Your task to perform on an android device: Search for "bose soundlink mini" on walmart.com, select the first entry, add it to the cart, then select checkout. Image 0: 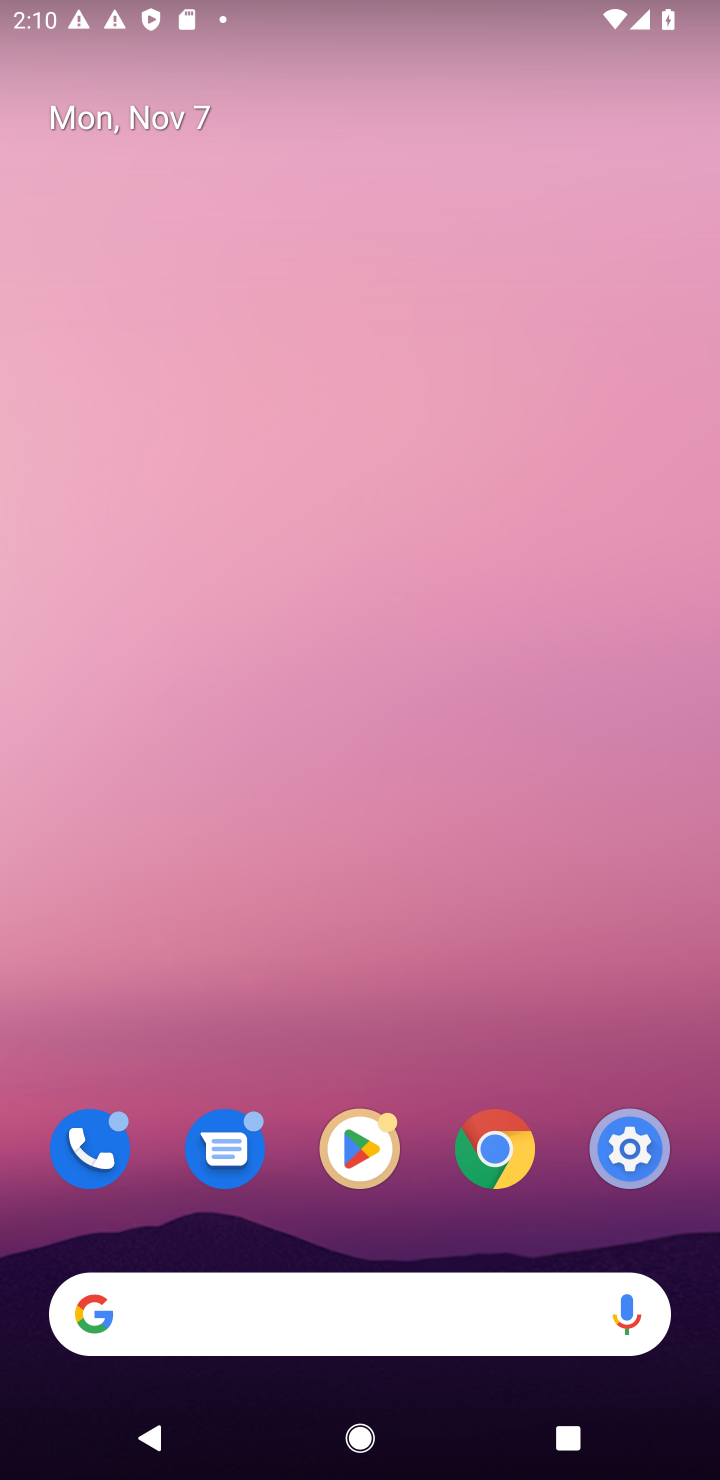
Step 0: click (489, 1146)
Your task to perform on an android device: Search for "bose soundlink mini" on walmart.com, select the first entry, add it to the cart, then select checkout. Image 1: 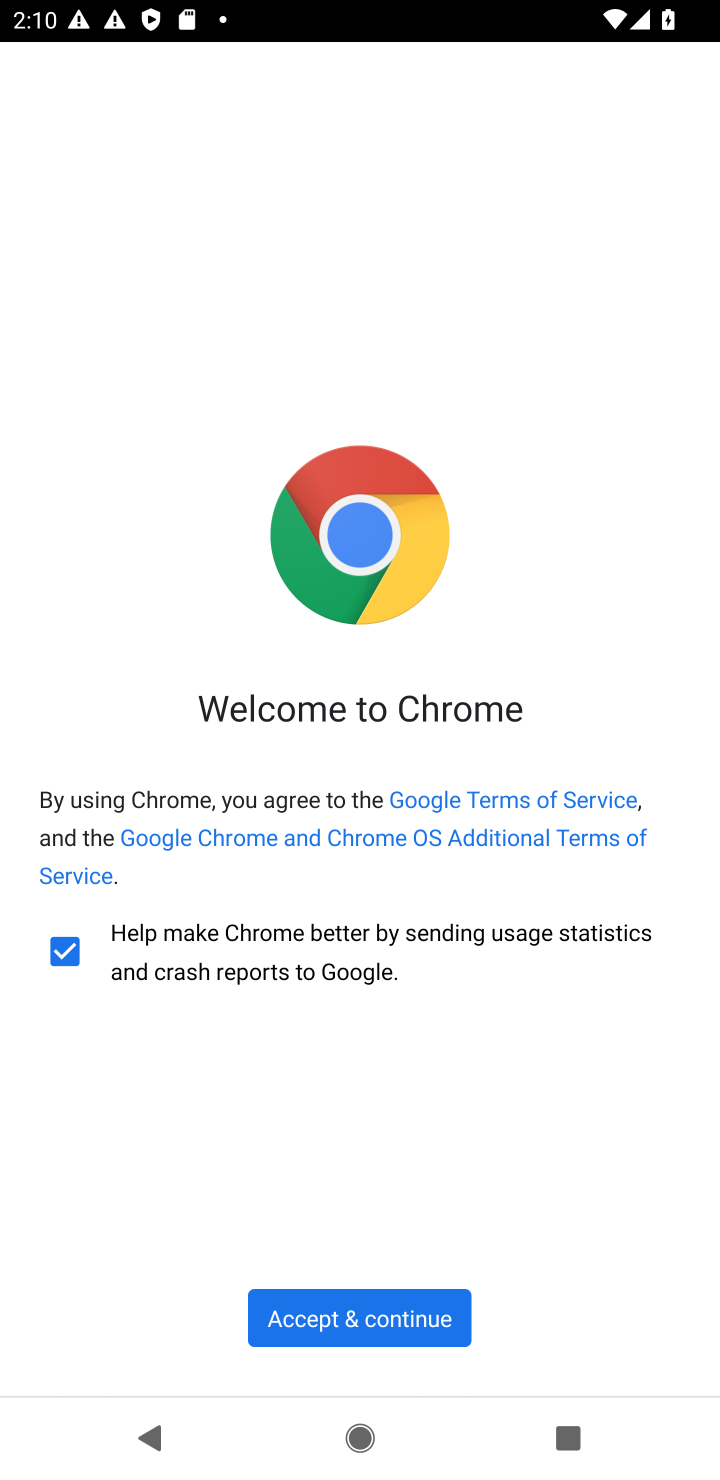
Step 1: click (376, 1307)
Your task to perform on an android device: Search for "bose soundlink mini" on walmart.com, select the first entry, add it to the cart, then select checkout. Image 2: 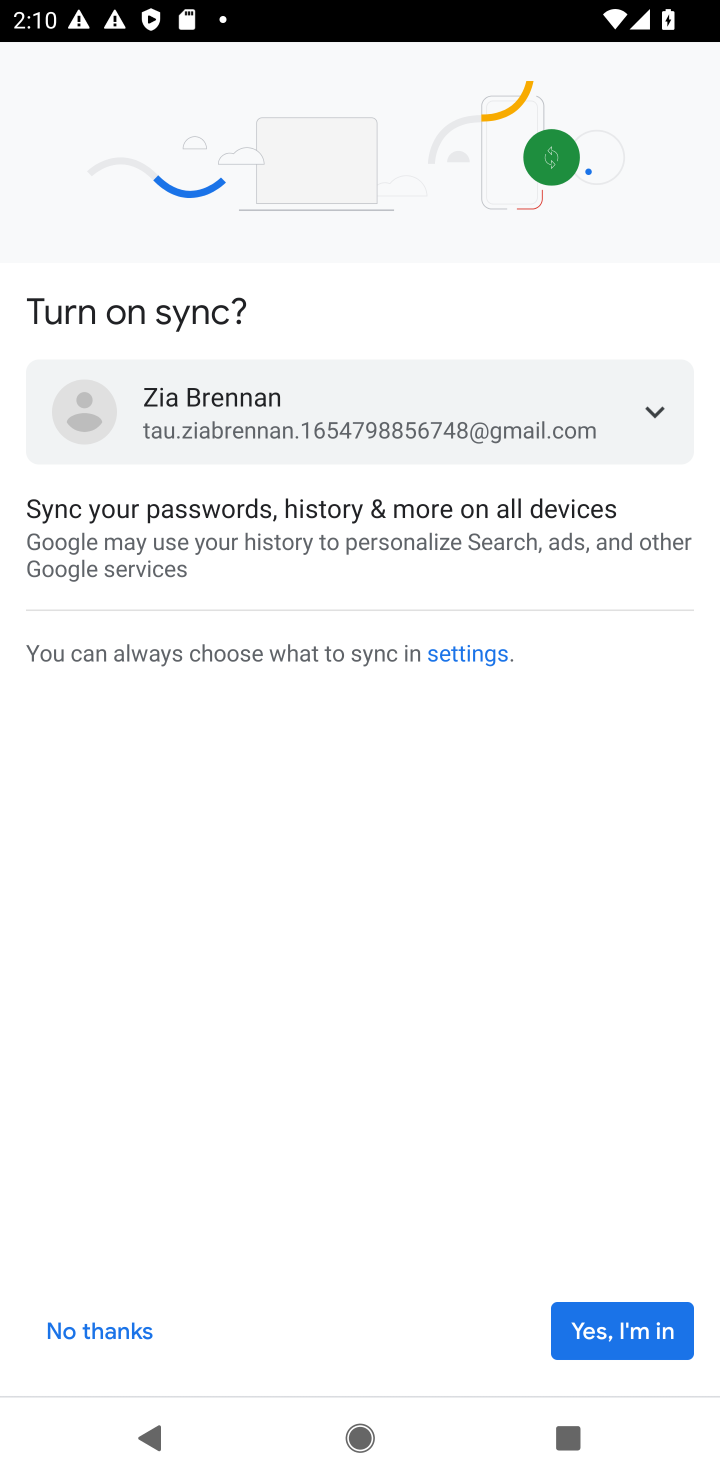
Step 2: click (608, 1308)
Your task to perform on an android device: Search for "bose soundlink mini" on walmart.com, select the first entry, add it to the cart, then select checkout. Image 3: 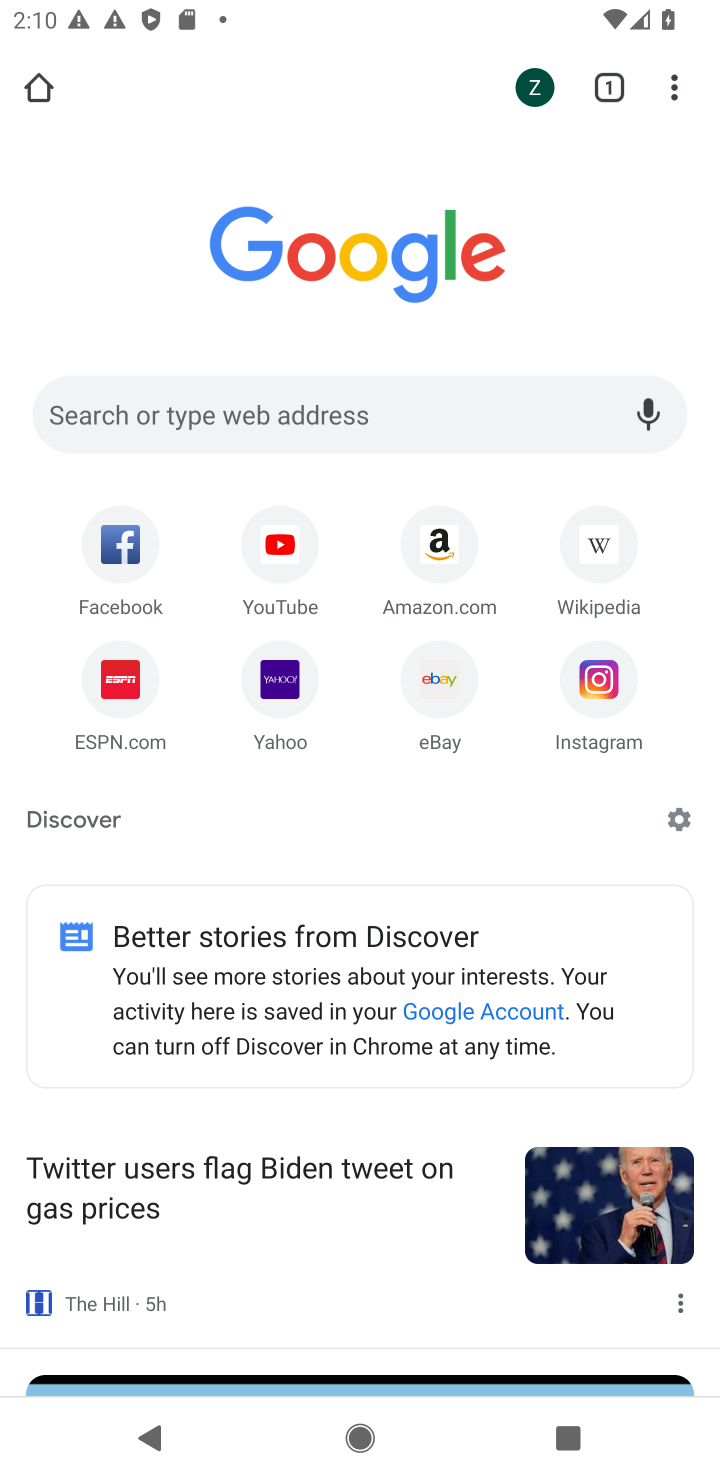
Step 3: click (159, 404)
Your task to perform on an android device: Search for "bose soundlink mini" on walmart.com, select the first entry, add it to the cart, then select checkout. Image 4: 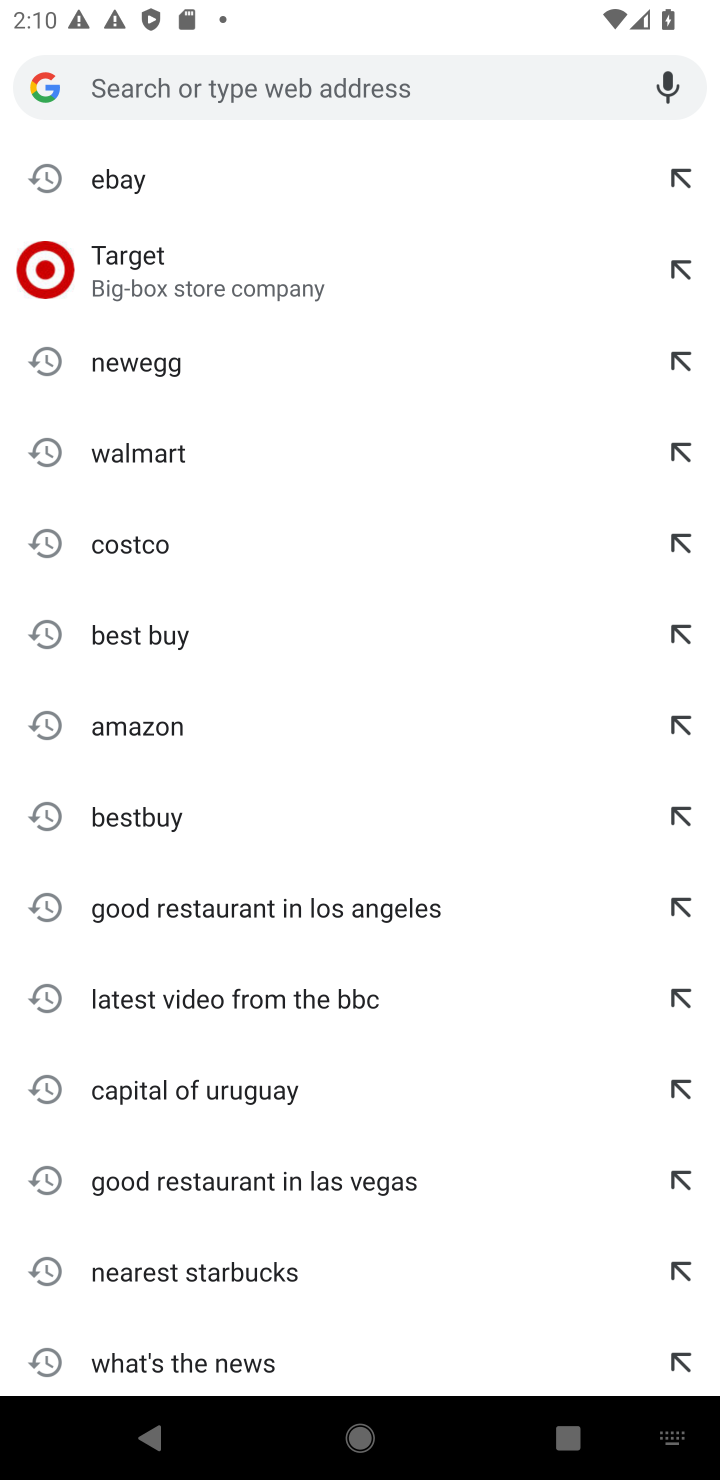
Step 4: type "walmart "
Your task to perform on an android device: Search for "bose soundlink mini" on walmart.com, select the first entry, add it to the cart, then select checkout. Image 5: 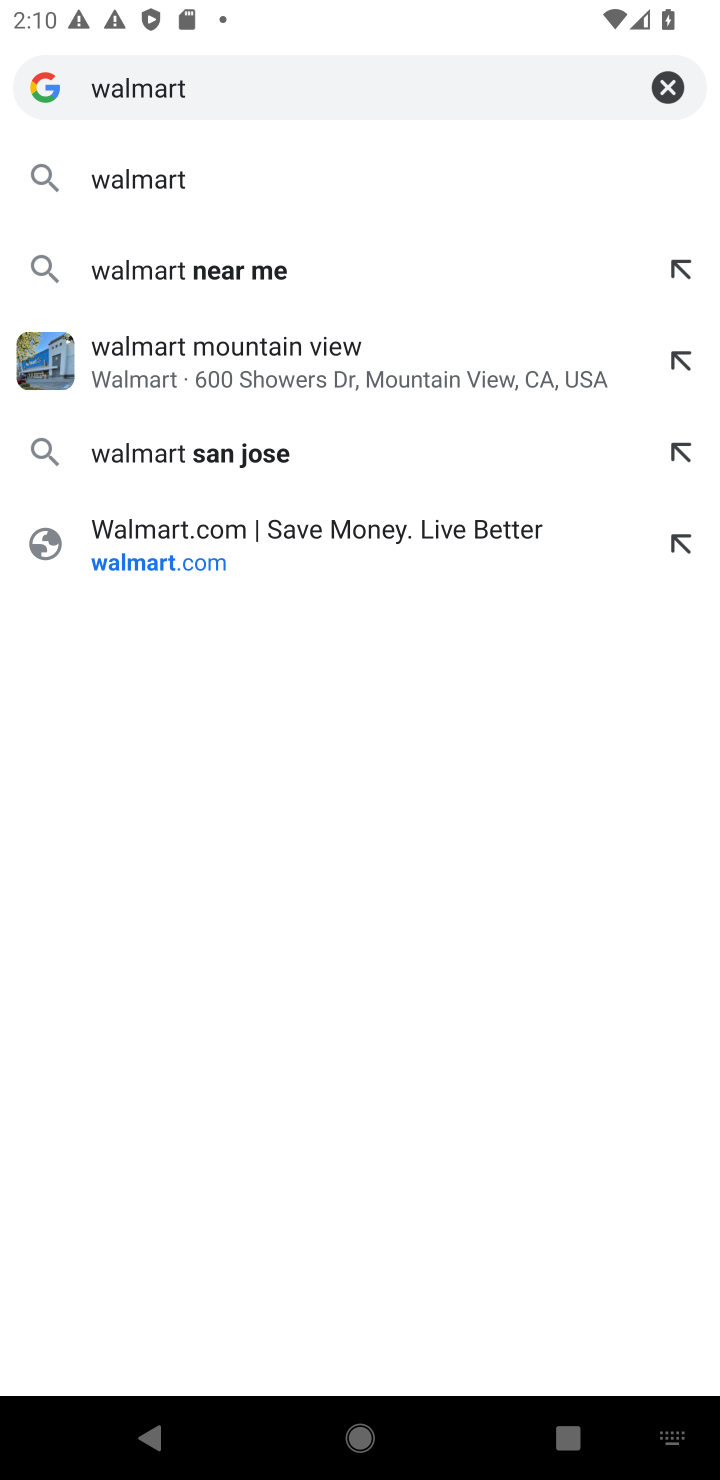
Step 5: click (147, 536)
Your task to perform on an android device: Search for "bose soundlink mini" on walmart.com, select the first entry, add it to the cart, then select checkout. Image 6: 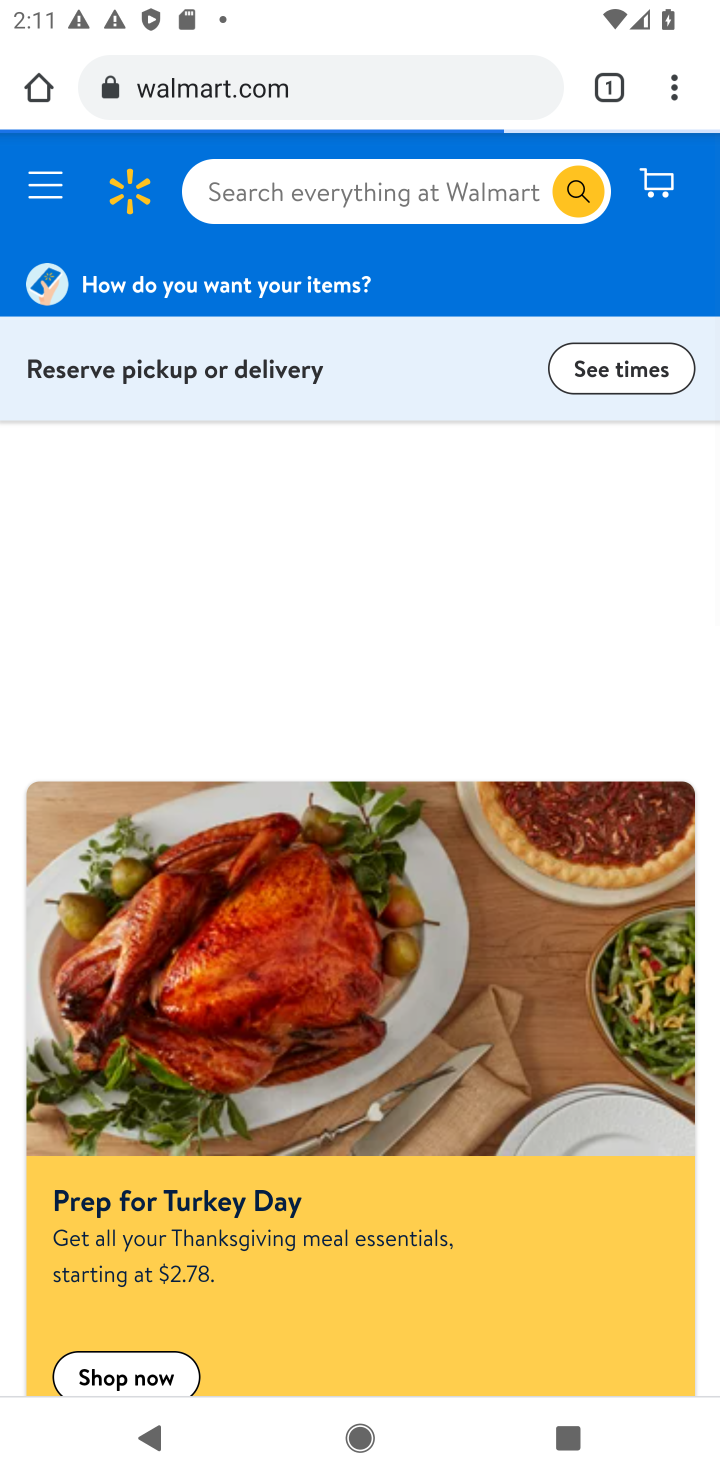
Step 6: click (260, 179)
Your task to perform on an android device: Search for "bose soundlink mini" on walmart.com, select the first entry, add it to the cart, then select checkout. Image 7: 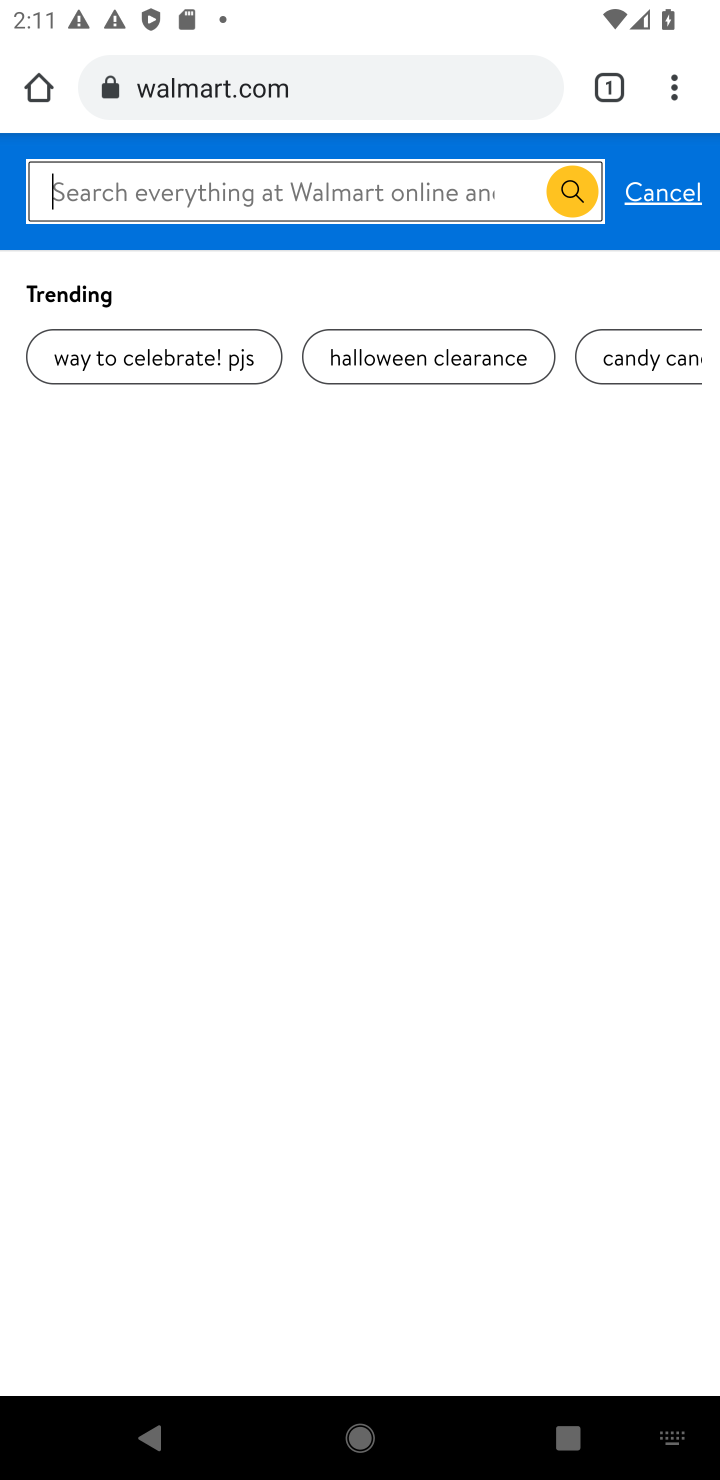
Step 7: type "bose soundlink mini "
Your task to perform on an android device: Search for "bose soundlink mini" on walmart.com, select the first entry, add it to the cart, then select checkout. Image 8: 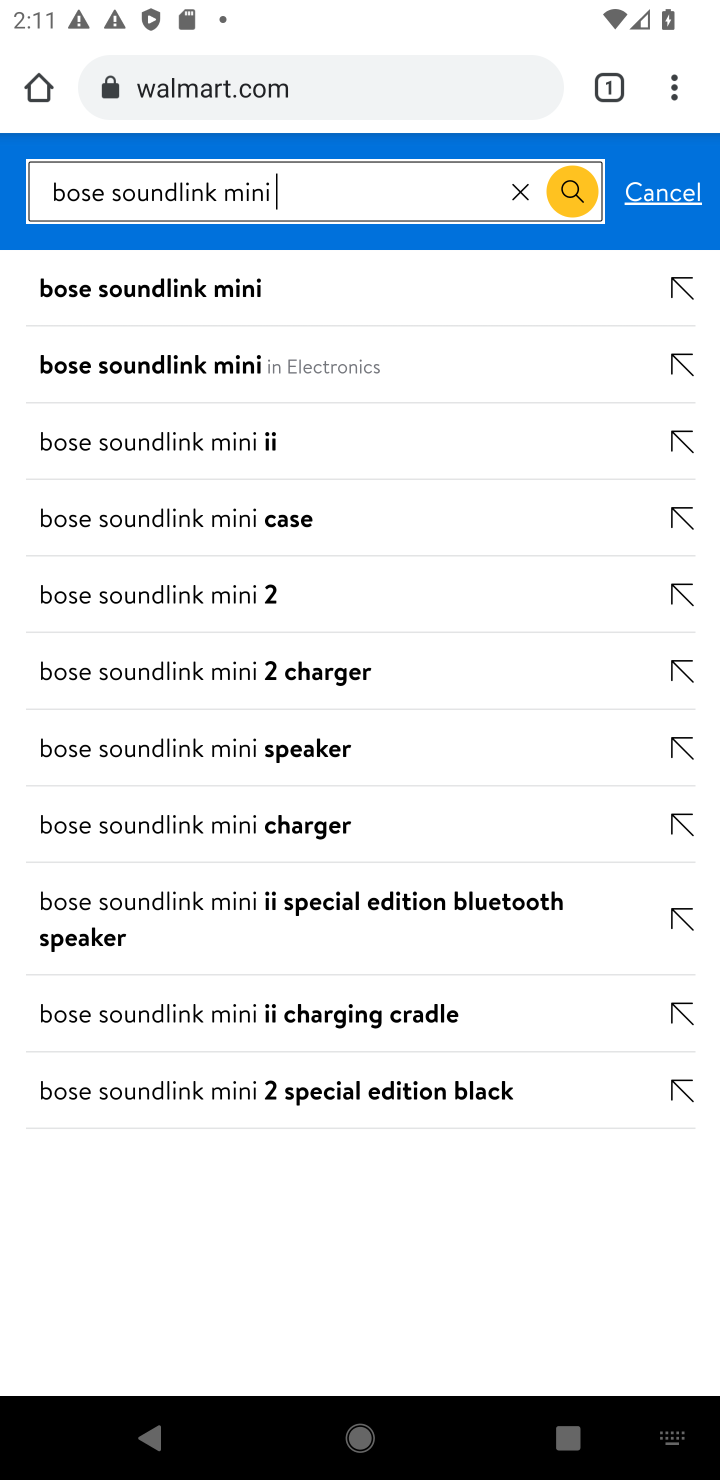
Step 8: click (131, 289)
Your task to perform on an android device: Search for "bose soundlink mini" on walmart.com, select the first entry, add it to the cart, then select checkout. Image 9: 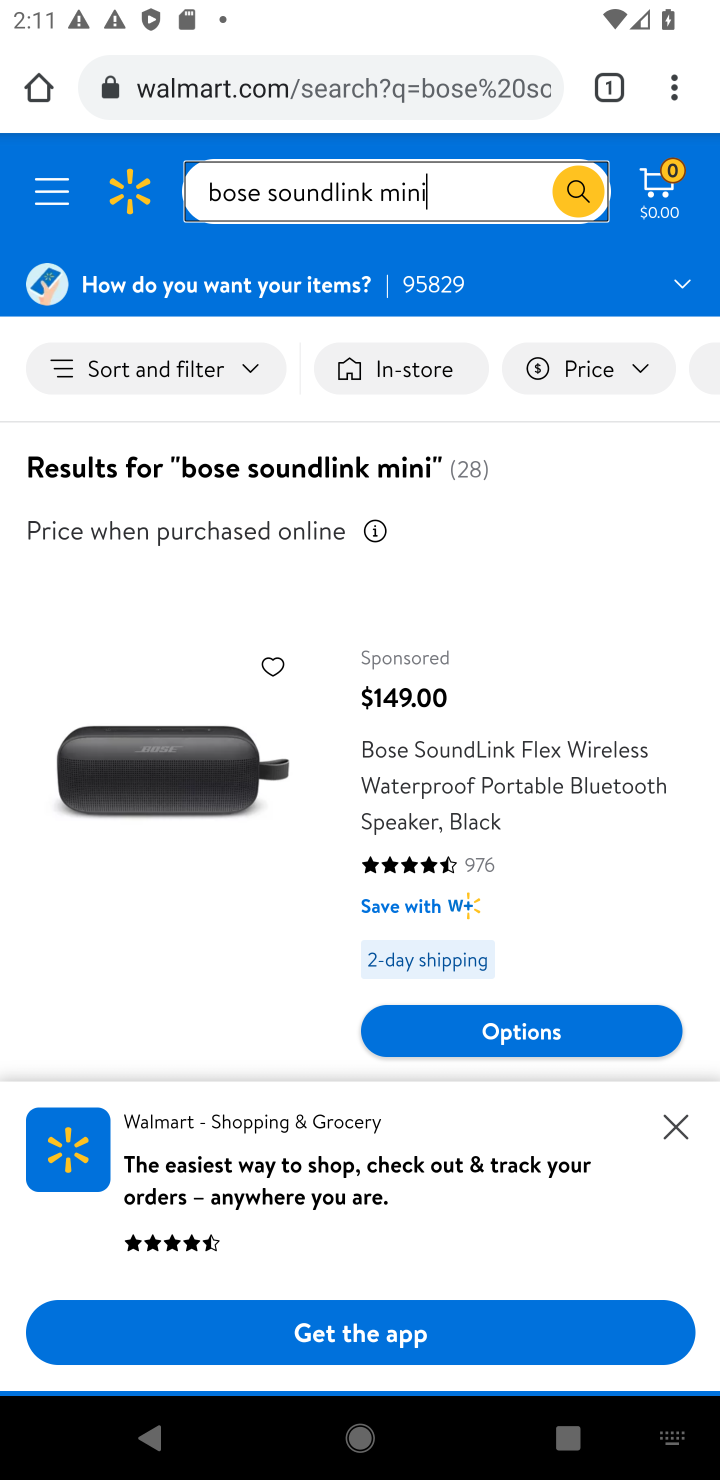
Step 9: click (672, 1117)
Your task to perform on an android device: Search for "bose soundlink mini" on walmart.com, select the first entry, add it to the cart, then select checkout. Image 10: 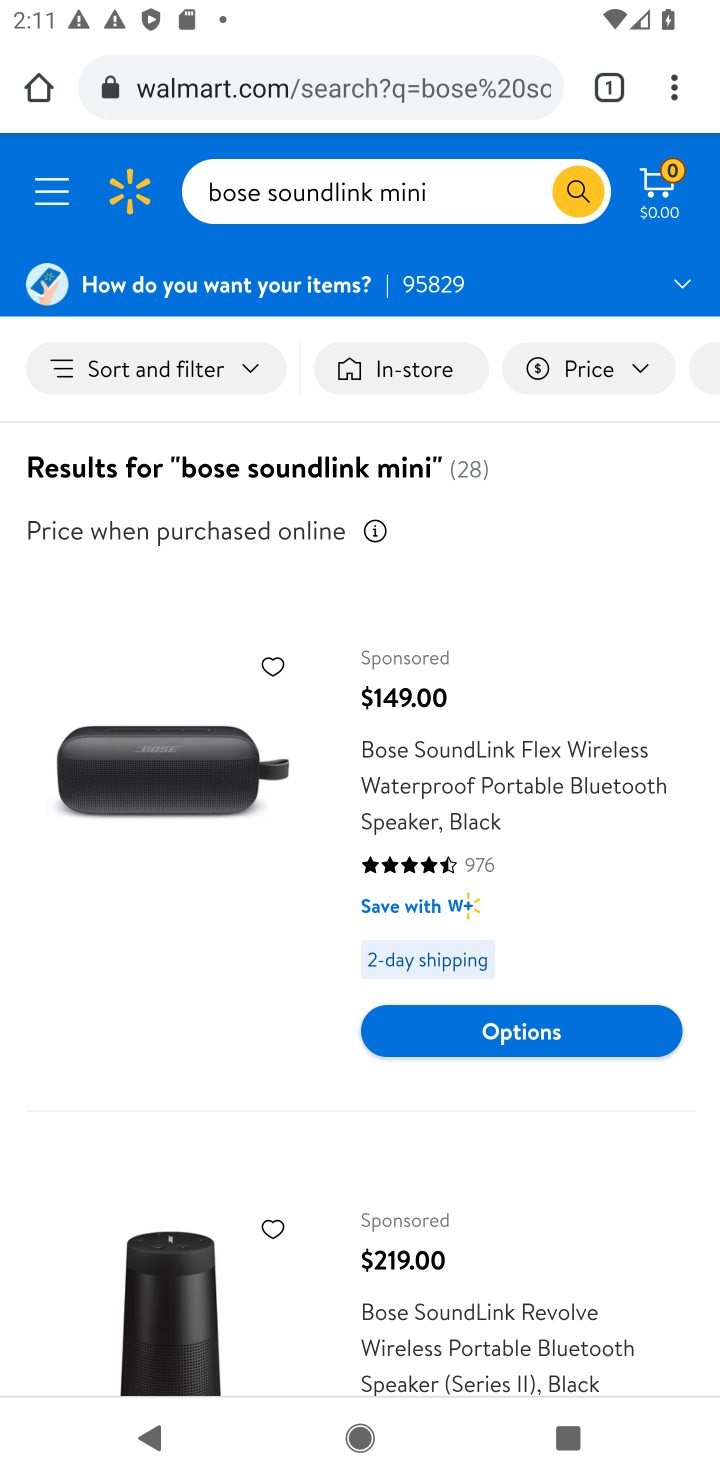
Step 10: drag from (187, 1057) to (289, 471)
Your task to perform on an android device: Search for "bose soundlink mini" on walmart.com, select the first entry, add it to the cart, then select checkout. Image 11: 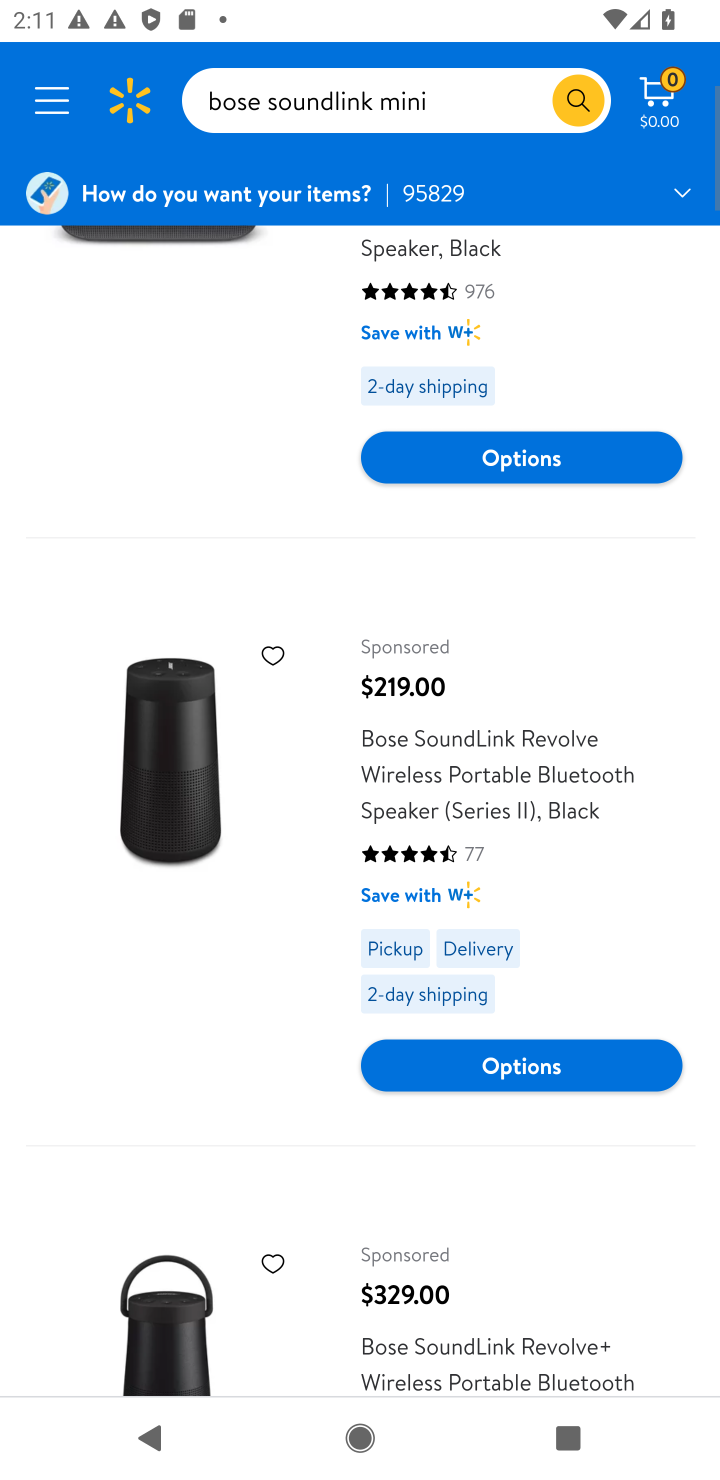
Step 11: drag from (144, 895) to (167, 511)
Your task to perform on an android device: Search for "bose soundlink mini" on walmart.com, select the first entry, add it to the cart, then select checkout. Image 12: 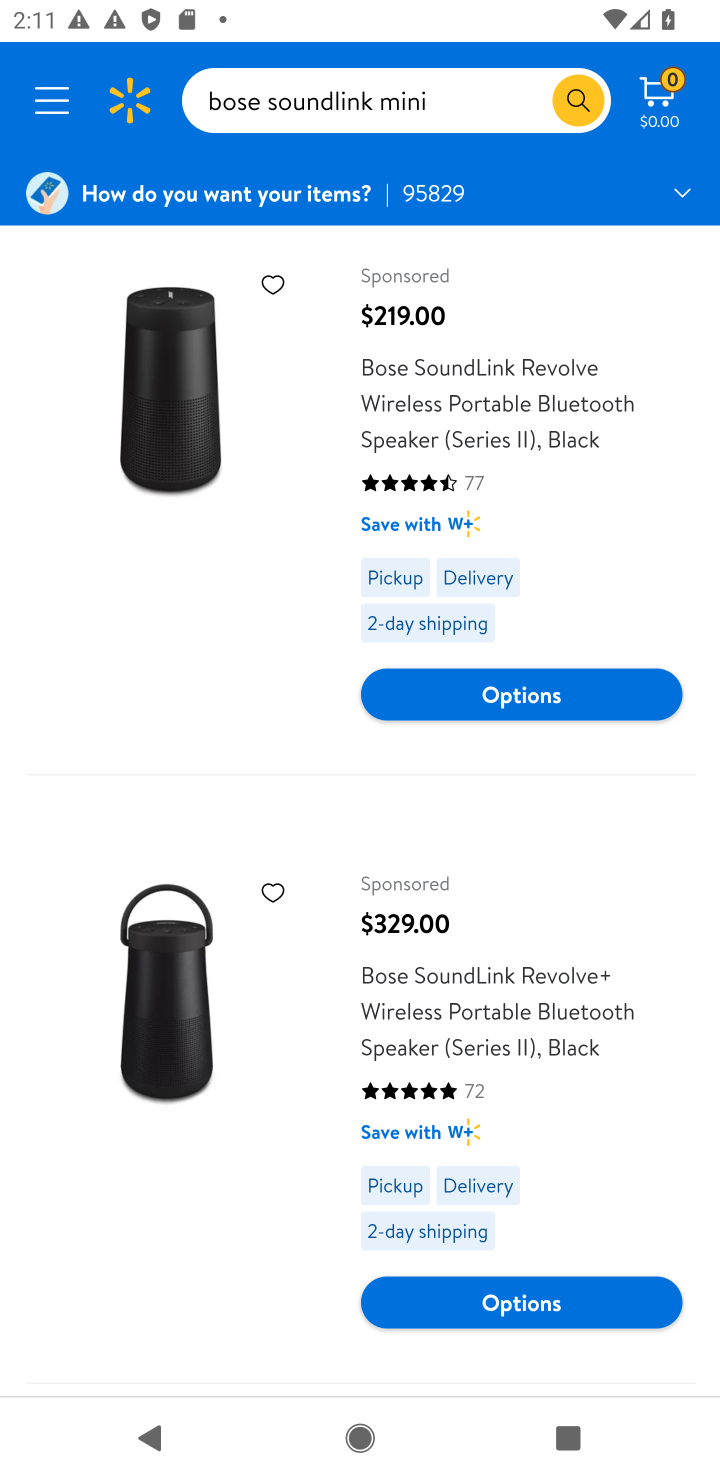
Step 12: click (444, 351)
Your task to perform on an android device: Search for "bose soundlink mini" on walmart.com, select the first entry, add it to the cart, then select checkout. Image 13: 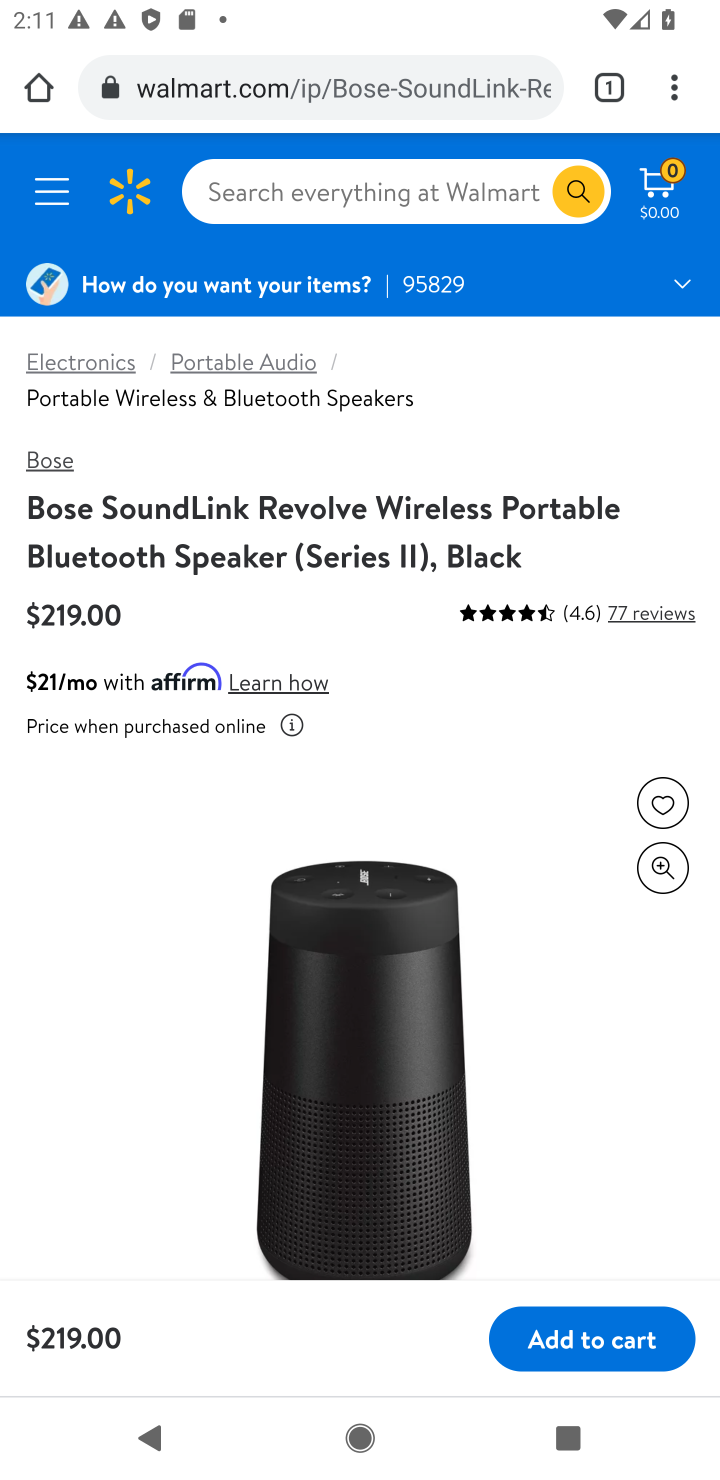
Step 13: drag from (164, 1125) to (197, 559)
Your task to perform on an android device: Search for "bose soundlink mini" on walmart.com, select the first entry, add it to the cart, then select checkout. Image 14: 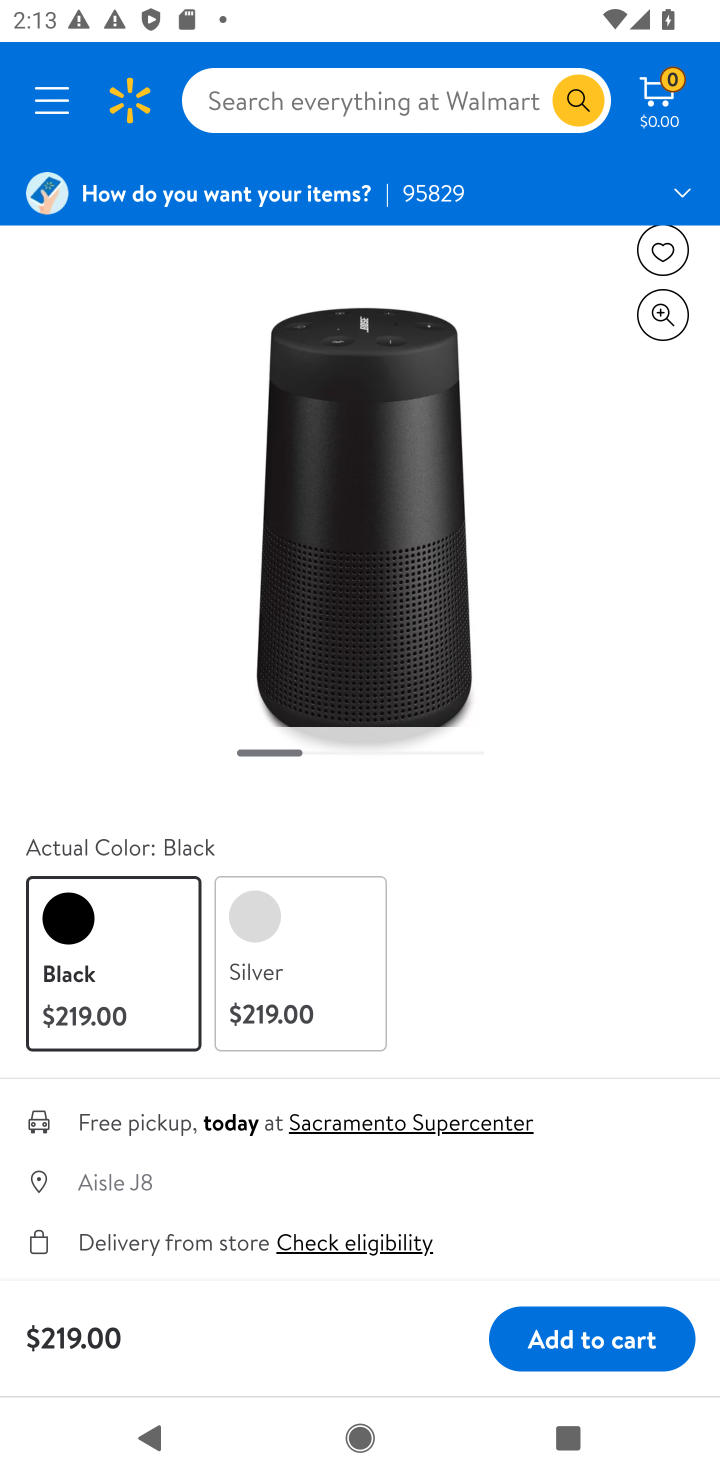
Step 14: click (567, 1361)
Your task to perform on an android device: Search for "bose soundlink mini" on walmart.com, select the first entry, add it to the cart, then select checkout. Image 15: 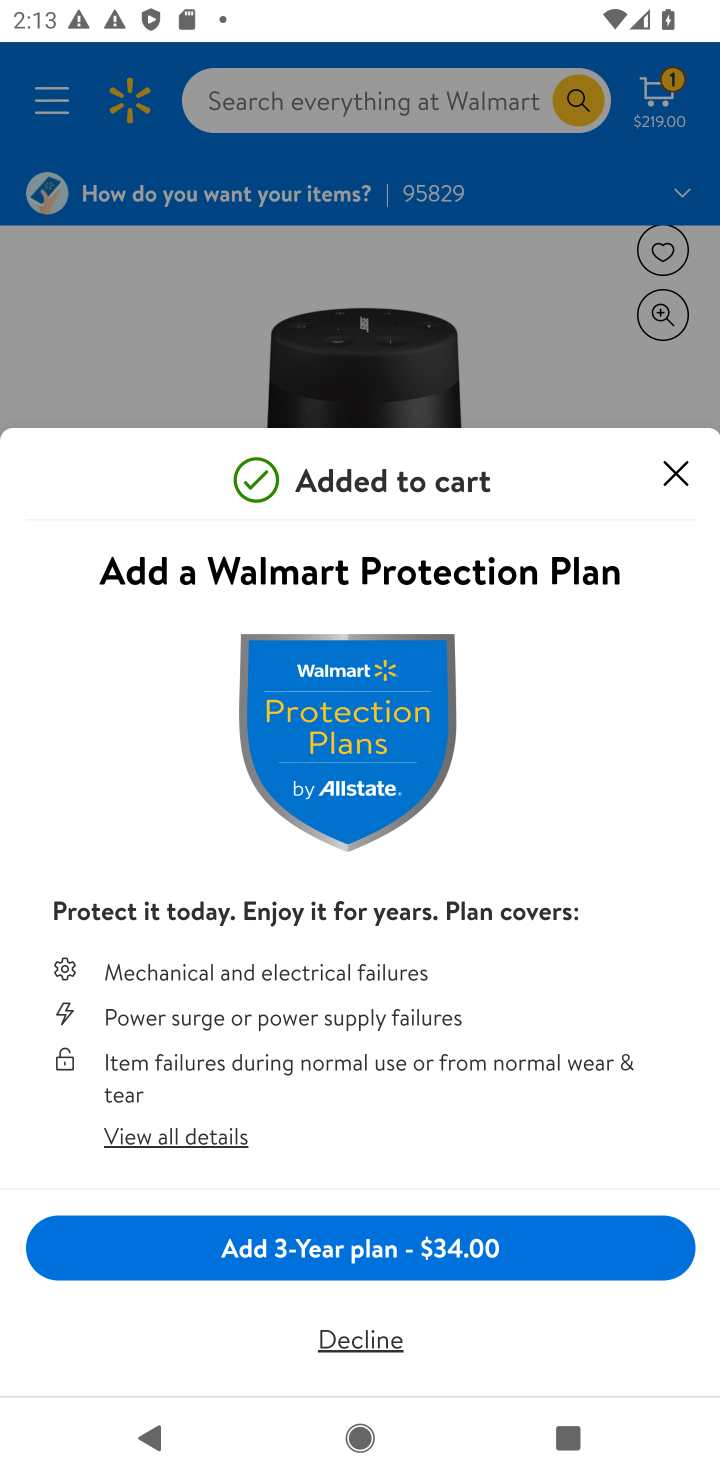
Step 15: click (670, 479)
Your task to perform on an android device: Search for "bose soundlink mini" on walmart.com, select the first entry, add it to the cart, then select checkout. Image 16: 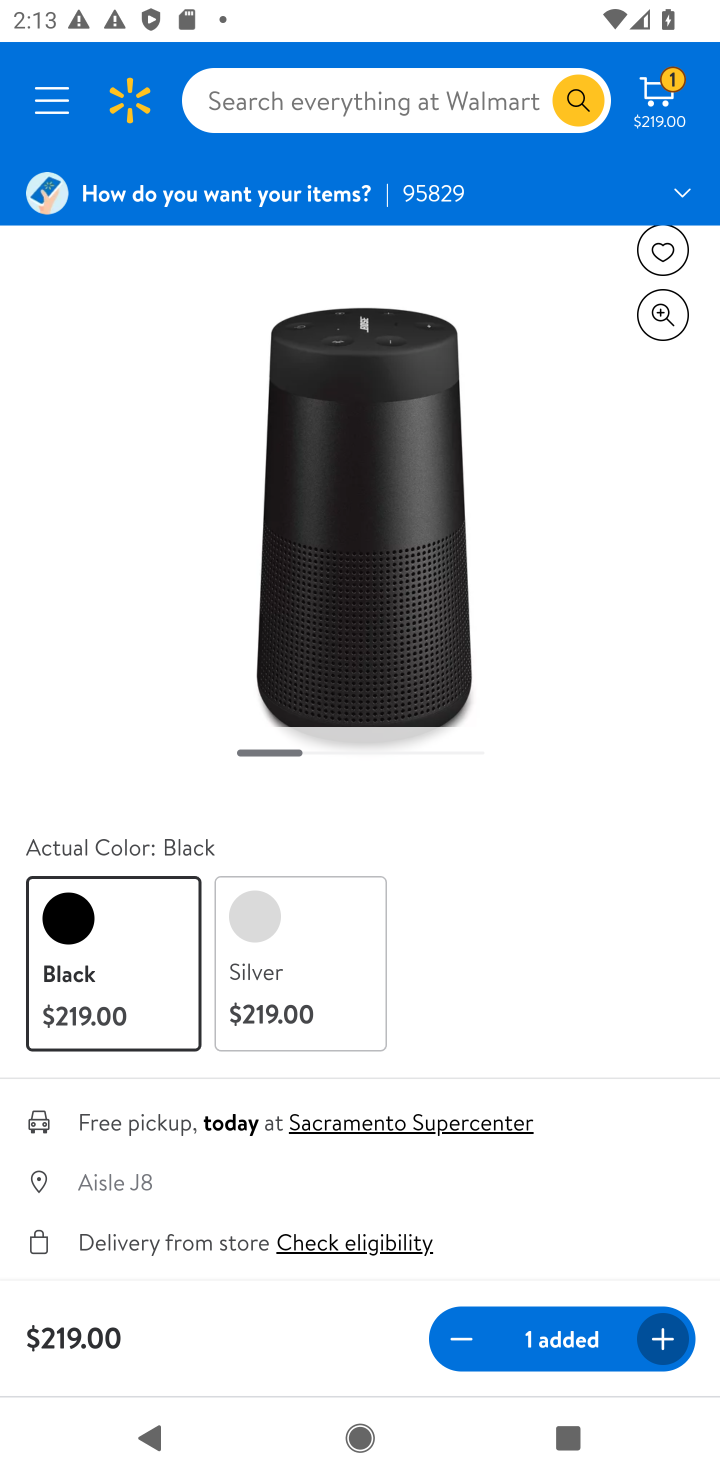
Step 16: task complete